Your task to perform on an android device: toggle priority inbox in the gmail app Image 0: 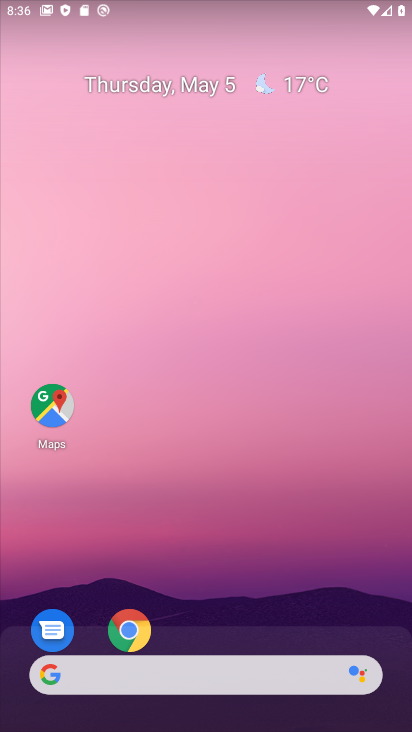
Step 0: press home button
Your task to perform on an android device: toggle priority inbox in the gmail app Image 1: 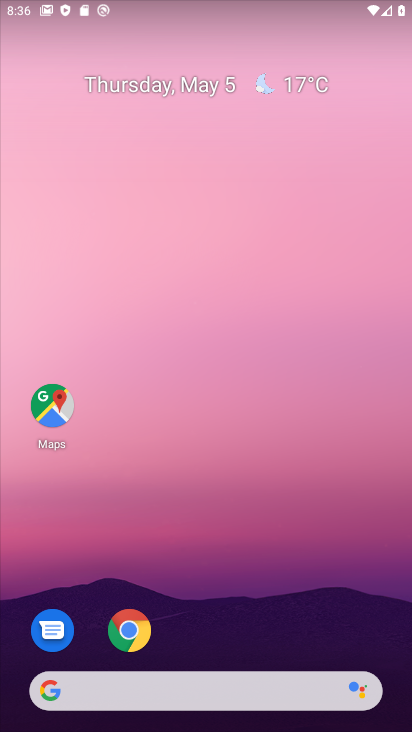
Step 1: drag from (210, 634) to (205, 34)
Your task to perform on an android device: toggle priority inbox in the gmail app Image 2: 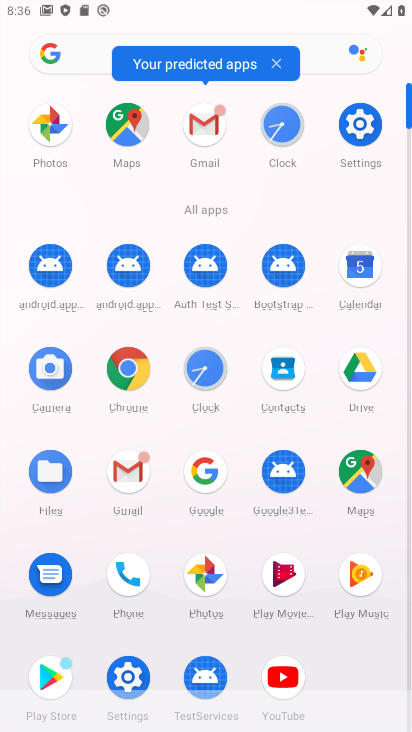
Step 2: click (123, 462)
Your task to perform on an android device: toggle priority inbox in the gmail app Image 3: 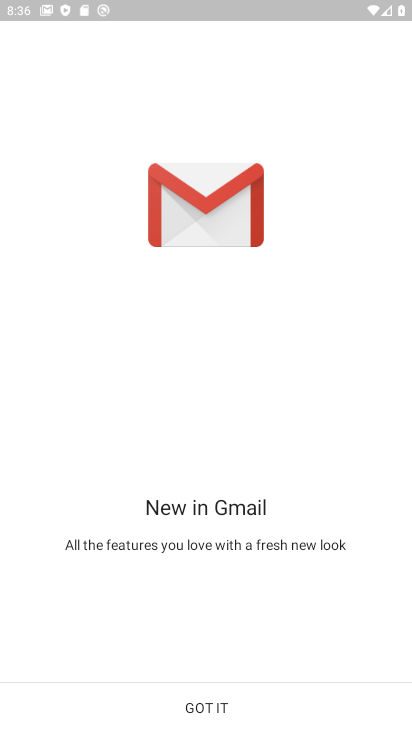
Step 3: click (206, 711)
Your task to perform on an android device: toggle priority inbox in the gmail app Image 4: 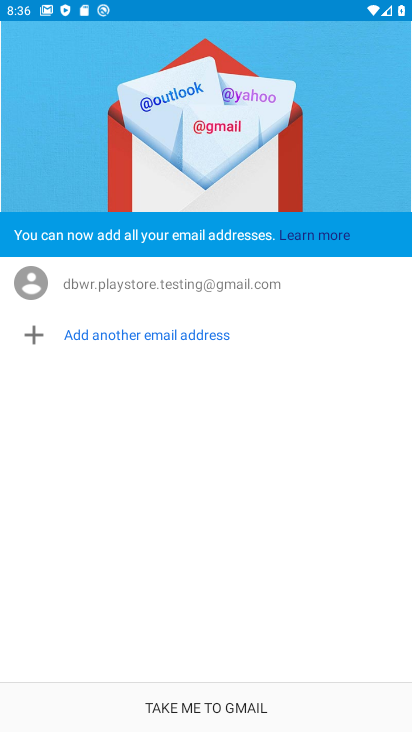
Step 4: click (206, 703)
Your task to perform on an android device: toggle priority inbox in the gmail app Image 5: 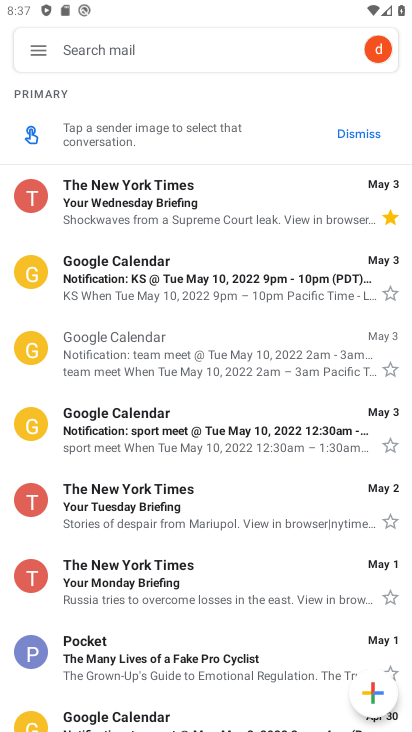
Step 5: click (35, 48)
Your task to perform on an android device: toggle priority inbox in the gmail app Image 6: 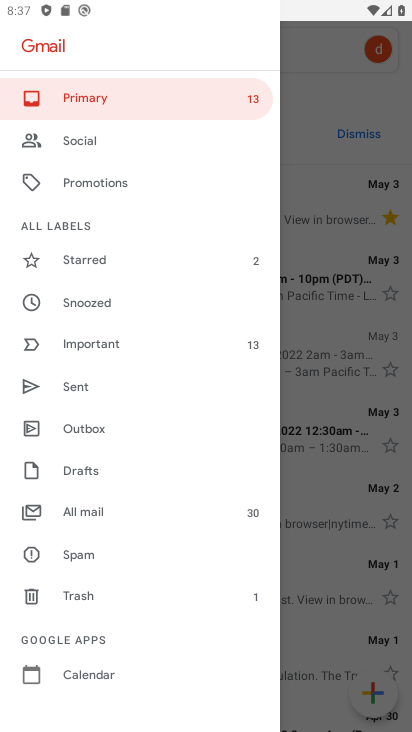
Step 6: drag from (114, 660) to (104, 150)
Your task to perform on an android device: toggle priority inbox in the gmail app Image 7: 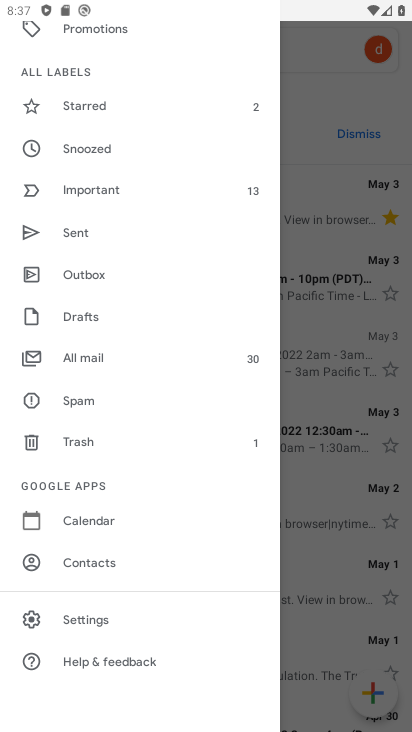
Step 7: click (110, 610)
Your task to perform on an android device: toggle priority inbox in the gmail app Image 8: 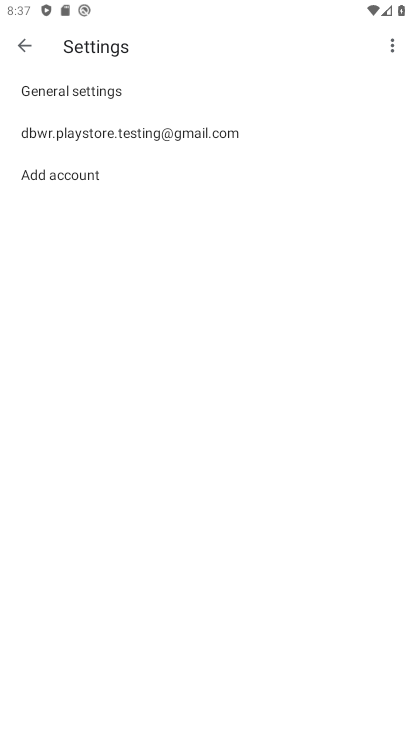
Step 8: click (247, 131)
Your task to perform on an android device: toggle priority inbox in the gmail app Image 9: 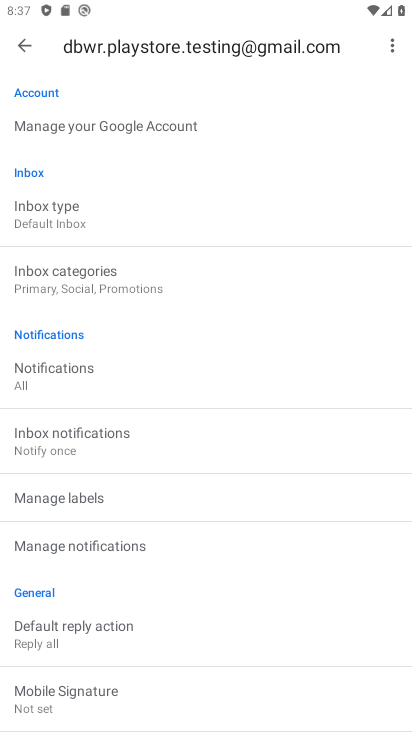
Step 9: click (89, 216)
Your task to perform on an android device: toggle priority inbox in the gmail app Image 10: 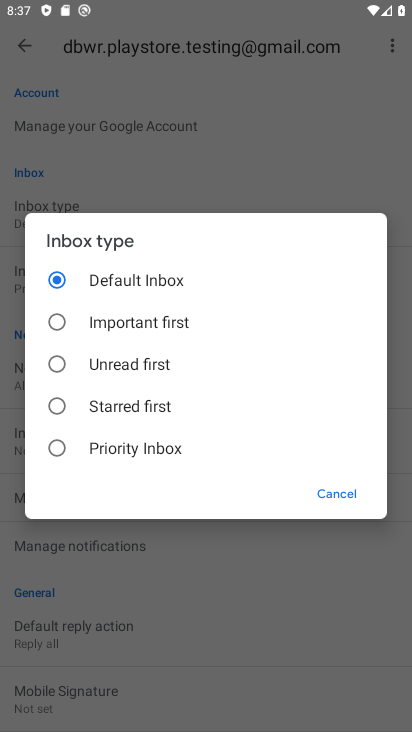
Step 10: click (53, 439)
Your task to perform on an android device: toggle priority inbox in the gmail app Image 11: 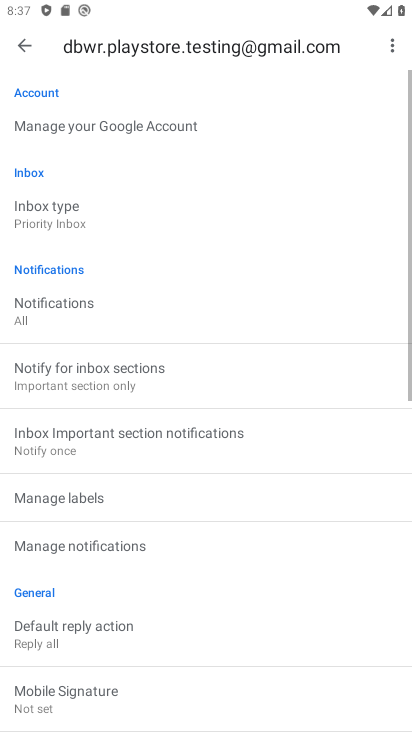
Step 11: task complete